Your task to perform on an android device: Open Reddit.com Image 0: 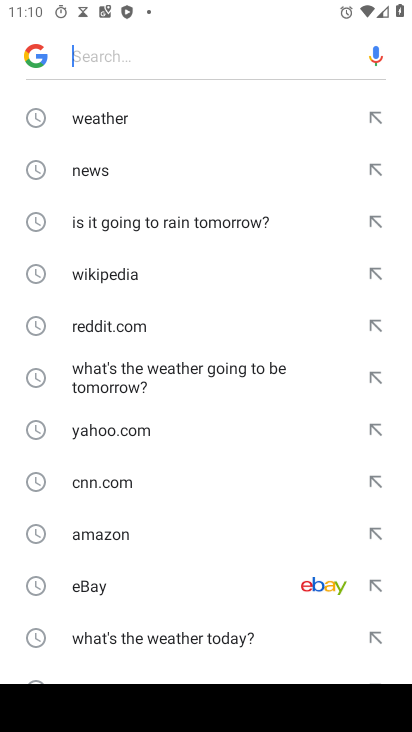
Step 0: press home button
Your task to perform on an android device: Open Reddit.com Image 1: 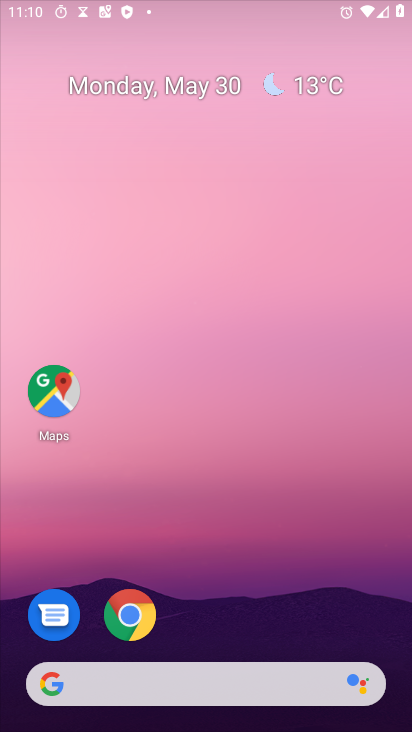
Step 1: drag from (331, 559) to (330, 18)
Your task to perform on an android device: Open Reddit.com Image 2: 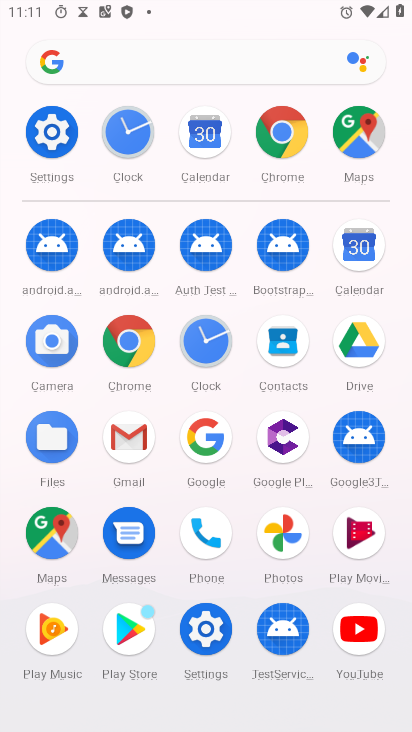
Step 2: click (280, 127)
Your task to perform on an android device: Open Reddit.com Image 3: 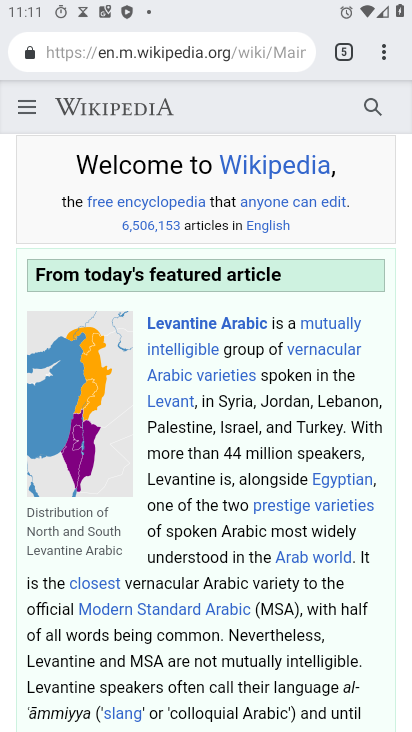
Step 3: click (205, 59)
Your task to perform on an android device: Open Reddit.com Image 4: 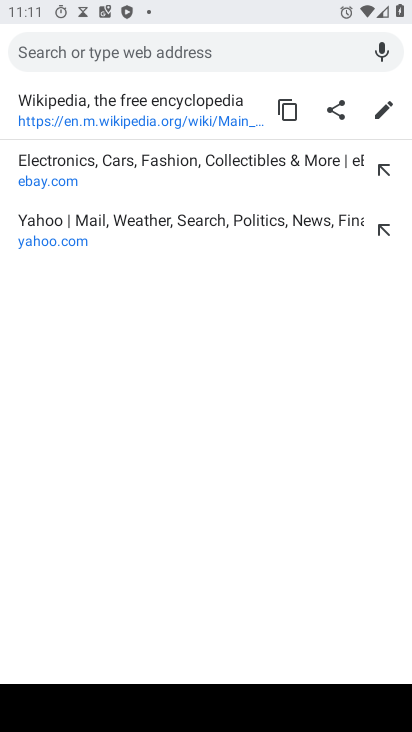
Step 4: type "reddit"
Your task to perform on an android device: Open Reddit.com Image 5: 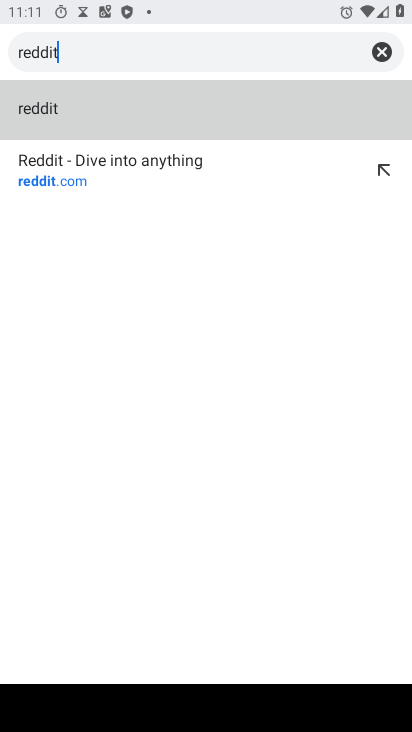
Step 5: click (137, 176)
Your task to perform on an android device: Open Reddit.com Image 6: 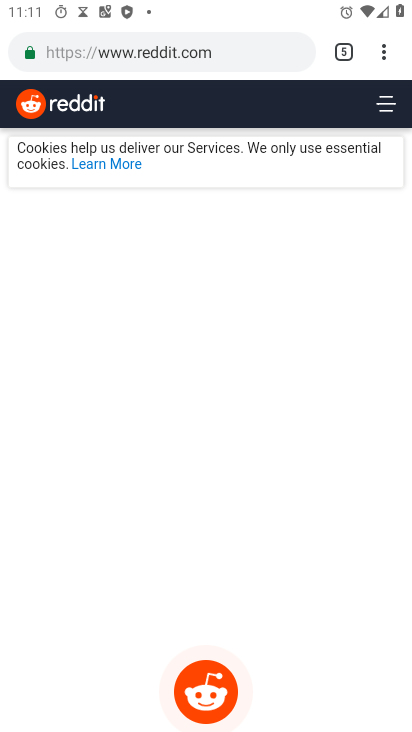
Step 6: task complete